Your task to perform on an android device: Open location settings Image 0: 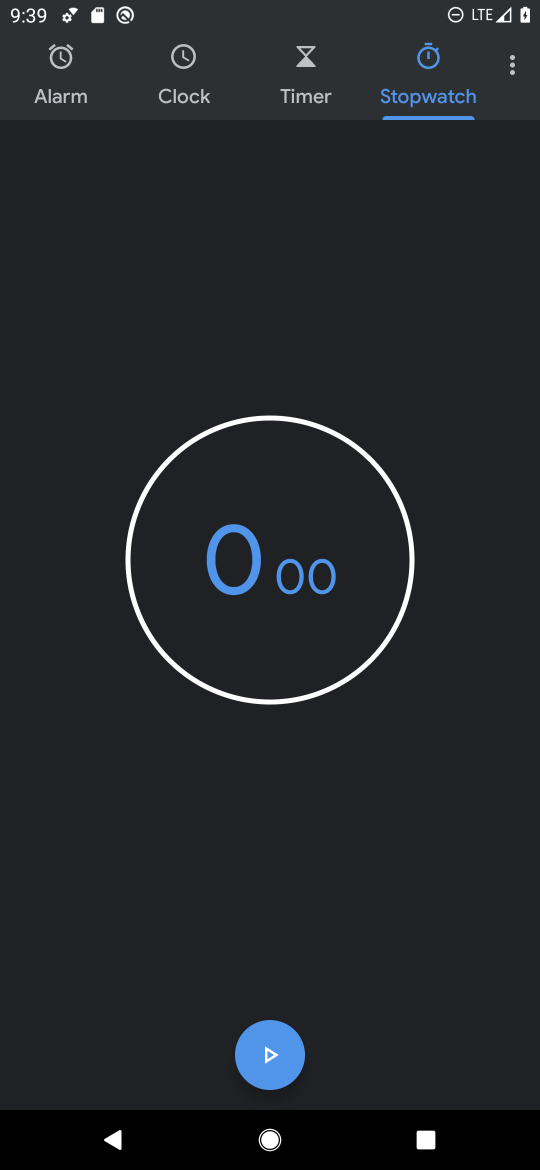
Step 0: press home button
Your task to perform on an android device: Open location settings Image 1: 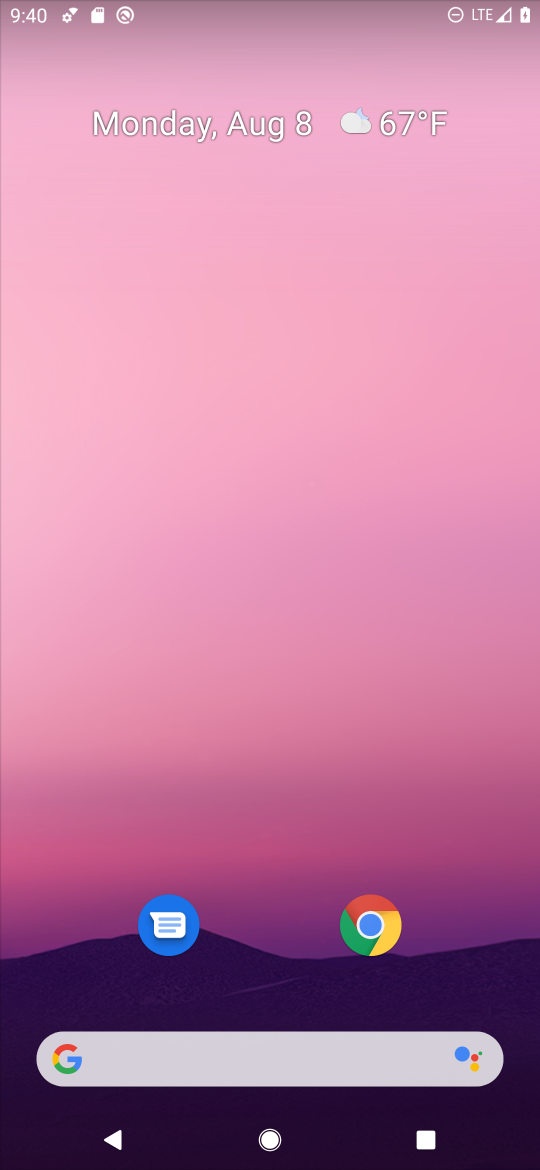
Step 1: drag from (288, 953) to (359, 181)
Your task to perform on an android device: Open location settings Image 2: 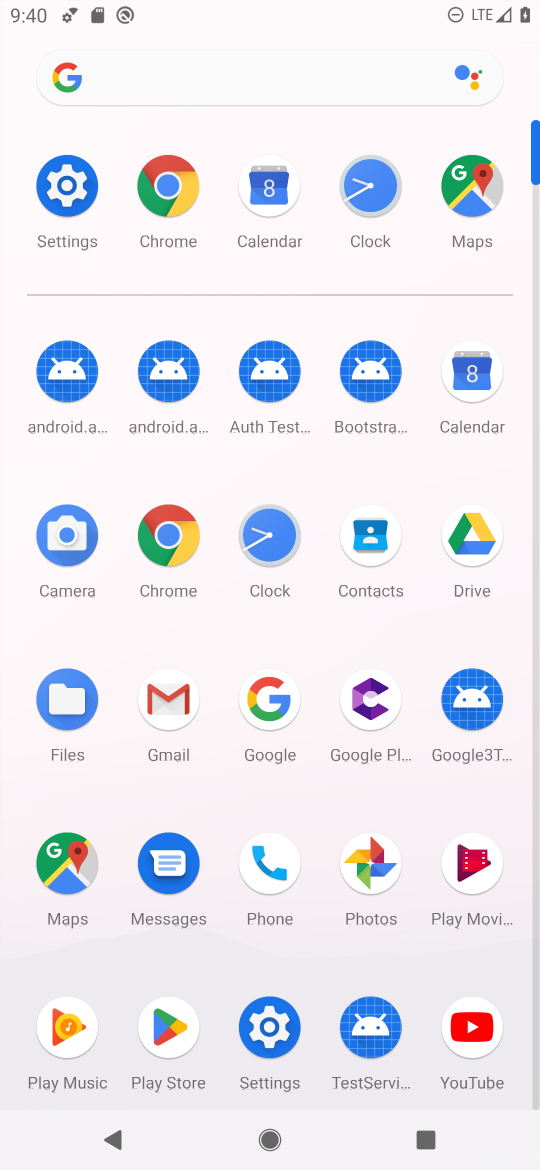
Step 2: click (268, 1024)
Your task to perform on an android device: Open location settings Image 3: 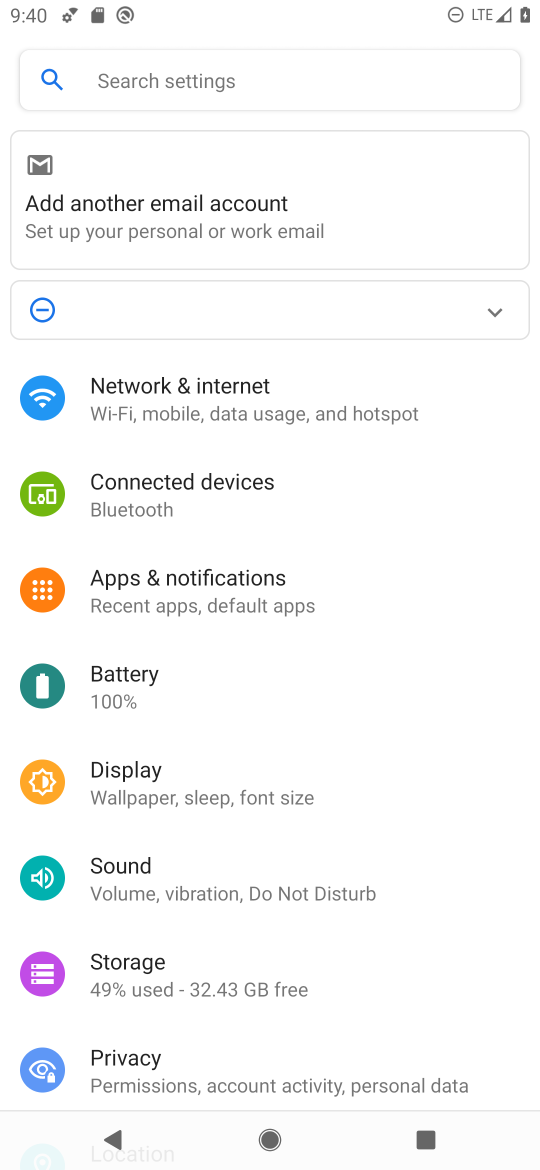
Step 3: drag from (206, 1020) to (341, 443)
Your task to perform on an android device: Open location settings Image 4: 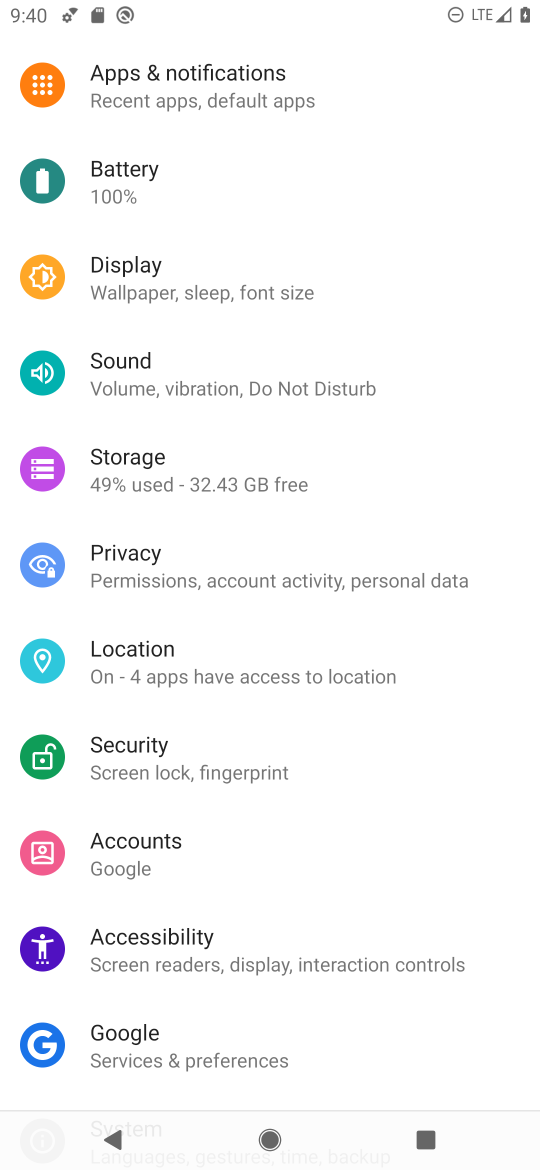
Step 4: click (167, 654)
Your task to perform on an android device: Open location settings Image 5: 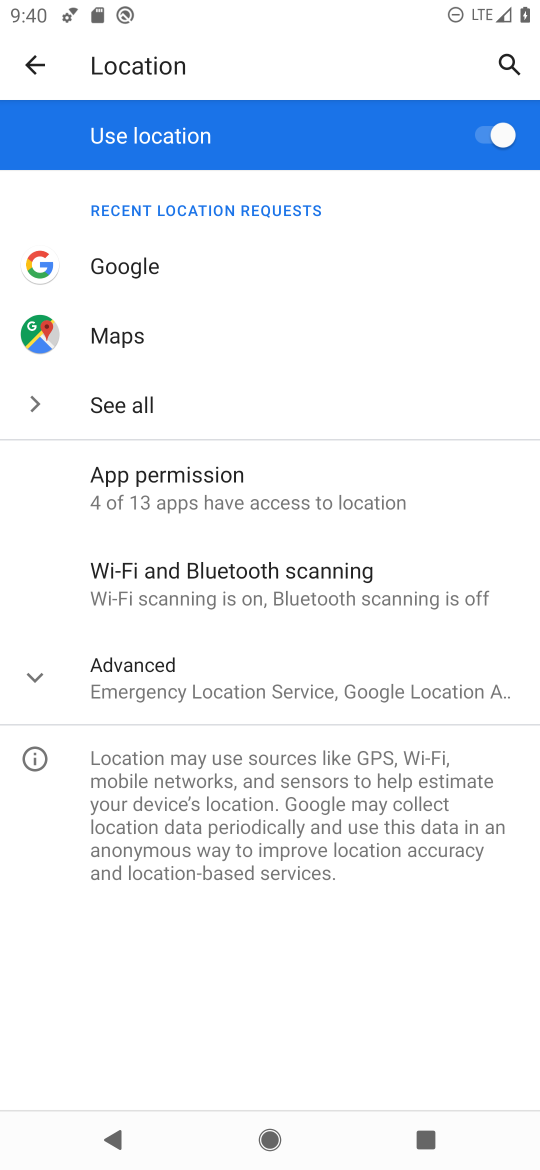
Step 5: task complete